Your task to perform on an android device: Open Wikipedia Image 0: 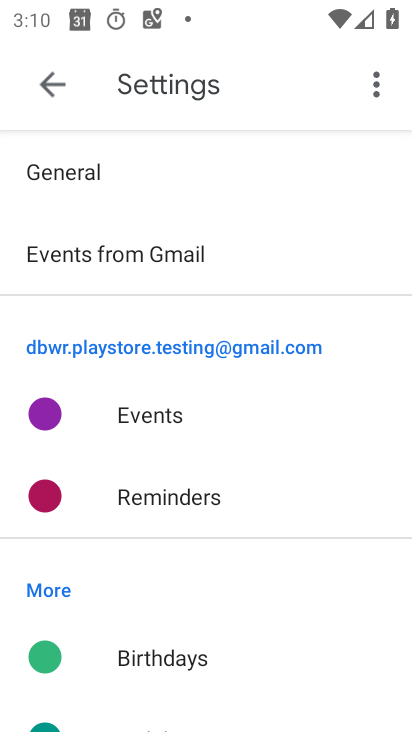
Step 0: press home button
Your task to perform on an android device: Open Wikipedia Image 1: 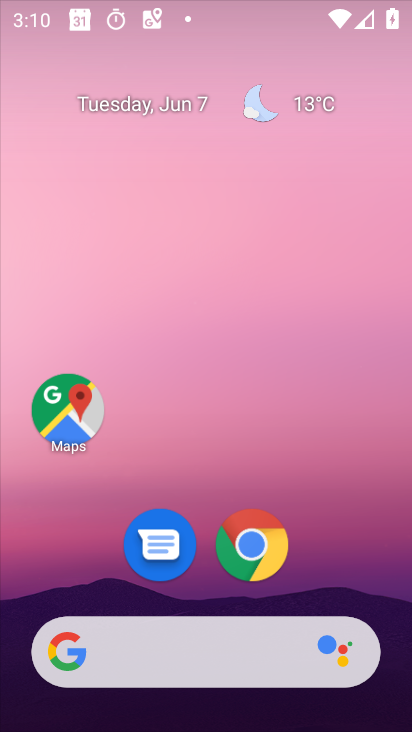
Step 1: click (244, 559)
Your task to perform on an android device: Open Wikipedia Image 2: 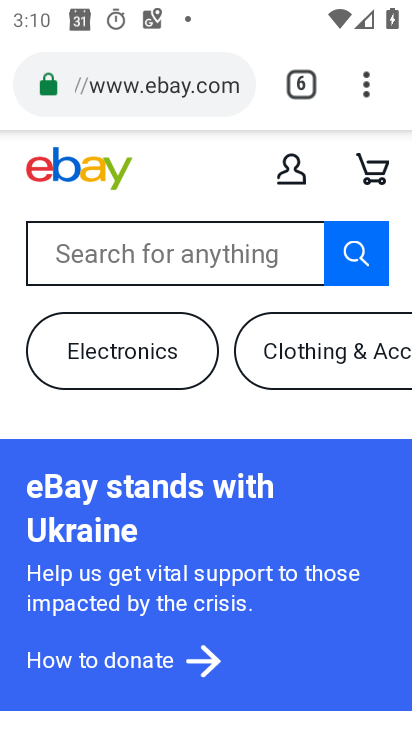
Step 2: click (309, 77)
Your task to perform on an android device: Open Wikipedia Image 3: 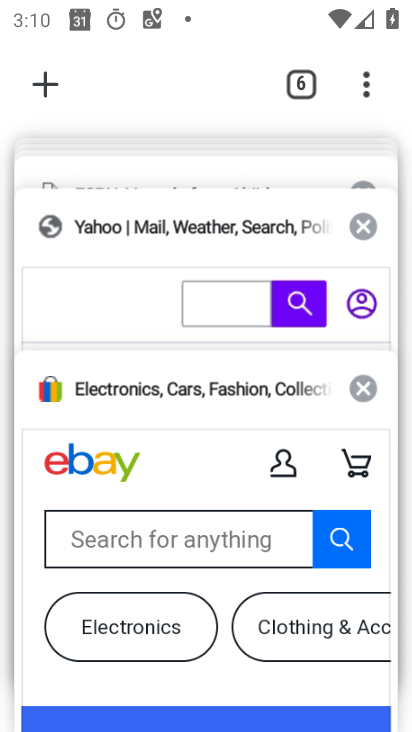
Step 3: drag from (199, 242) to (246, 697)
Your task to perform on an android device: Open Wikipedia Image 4: 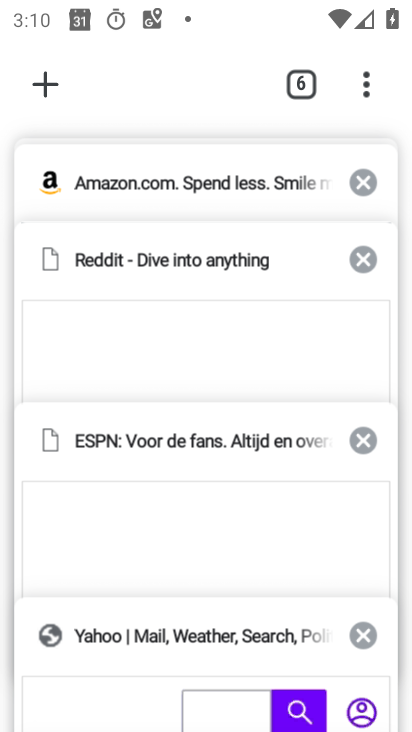
Step 4: drag from (182, 200) to (204, 640)
Your task to perform on an android device: Open Wikipedia Image 5: 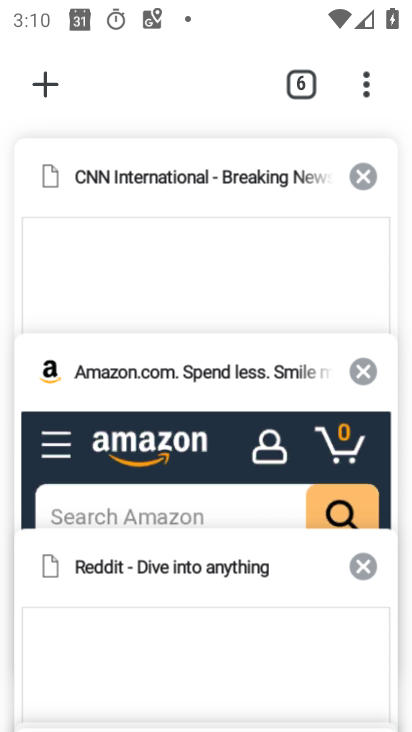
Step 5: drag from (155, 159) to (205, 534)
Your task to perform on an android device: Open Wikipedia Image 6: 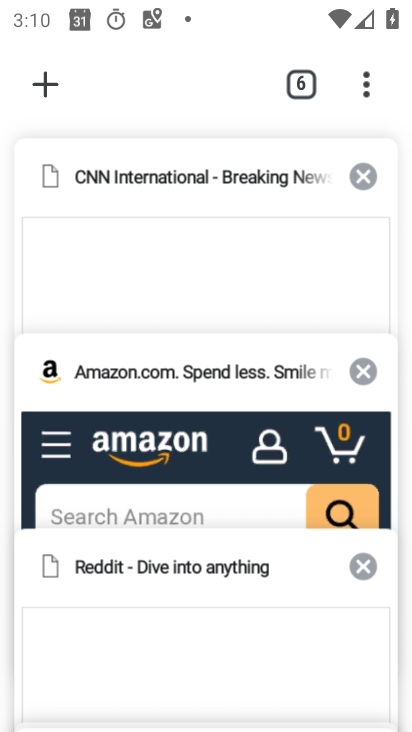
Step 6: click (205, 558)
Your task to perform on an android device: Open Wikipedia Image 7: 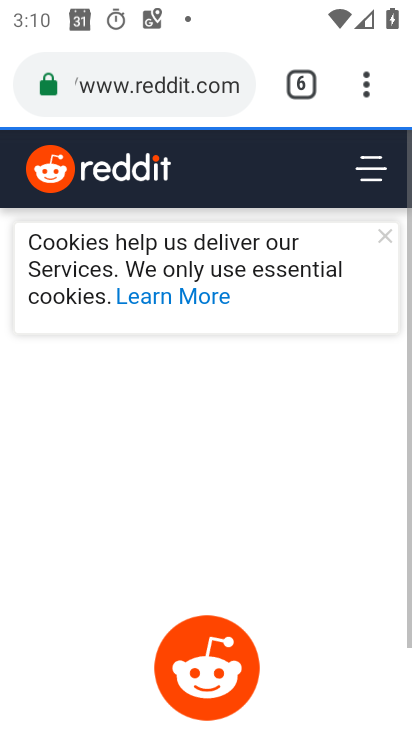
Step 7: click (304, 76)
Your task to perform on an android device: Open Wikipedia Image 8: 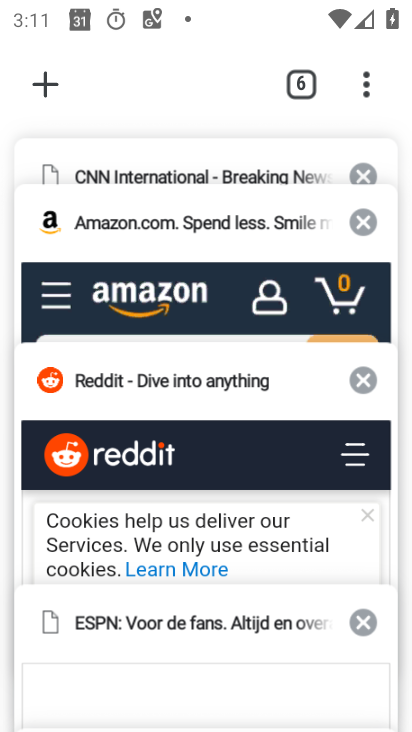
Step 8: click (35, 79)
Your task to perform on an android device: Open Wikipedia Image 9: 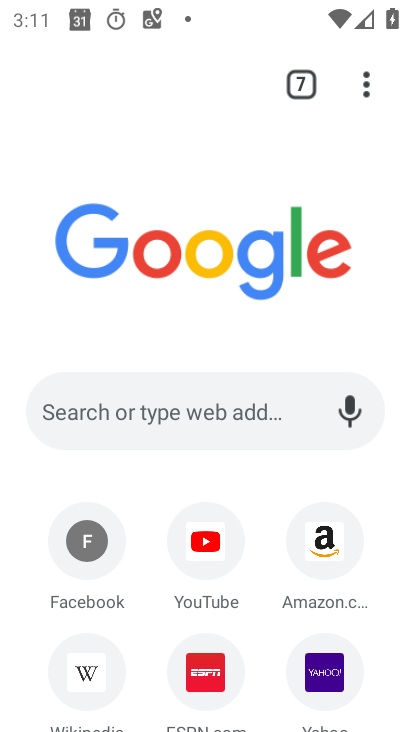
Step 9: click (104, 674)
Your task to perform on an android device: Open Wikipedia Image 10: 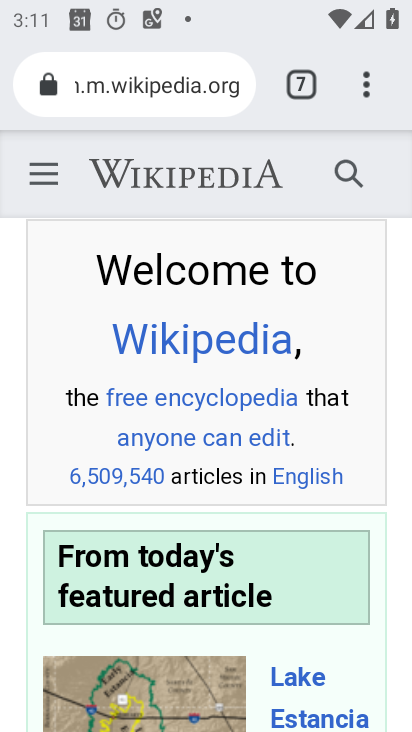
Step 10: task complete